Your task to perform on an android device: Go to privacy settings Image 0: 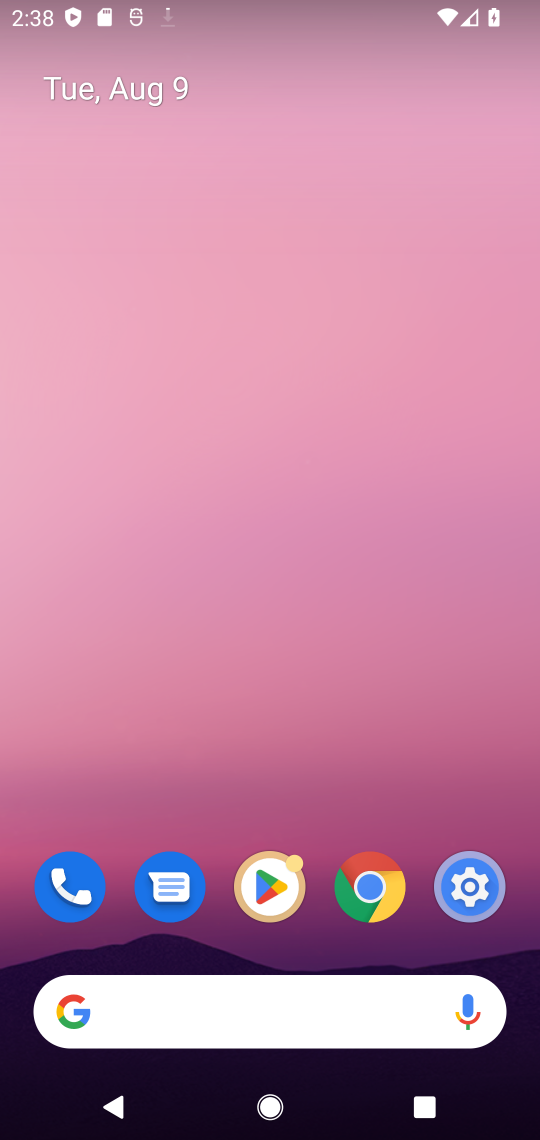
Step 0: drag from (272, 796) to (304, 298)
Your task to perform on an android device: Go to privacy settings Image 1: 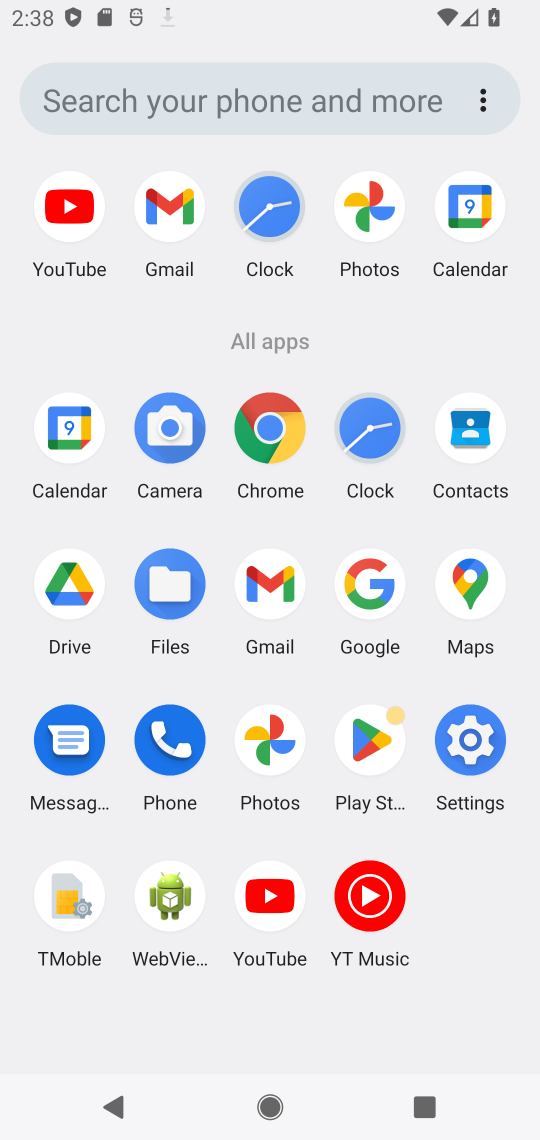
Step 1: click (466, 743)
Your task to perform on an android device: Go to privacy settings Image 2: 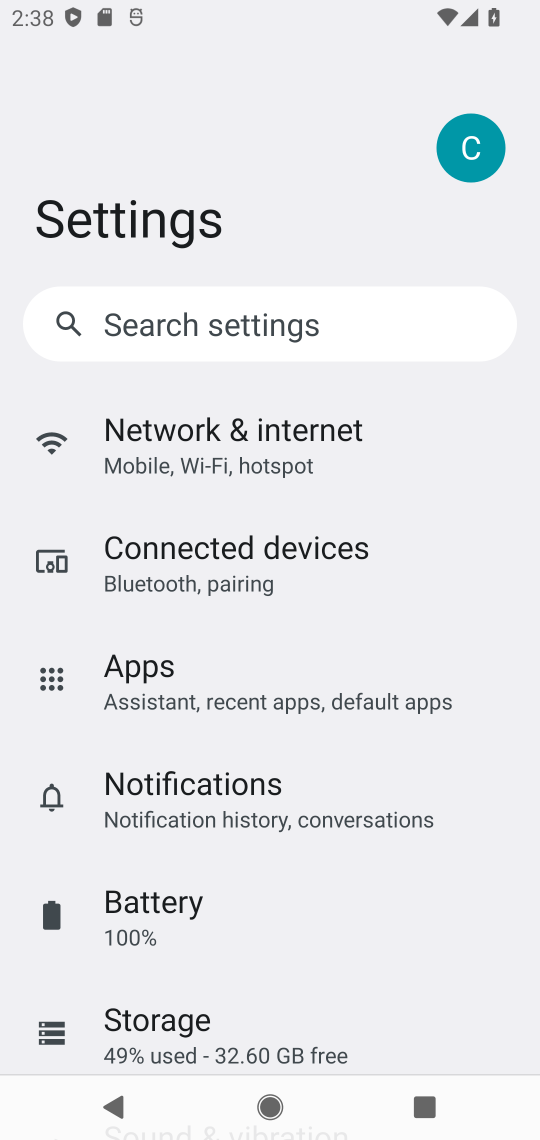
Step 2: drag from (309, 930) to (324, 420)
Your task to perform on an android device: Go to privacy settings Image 3: 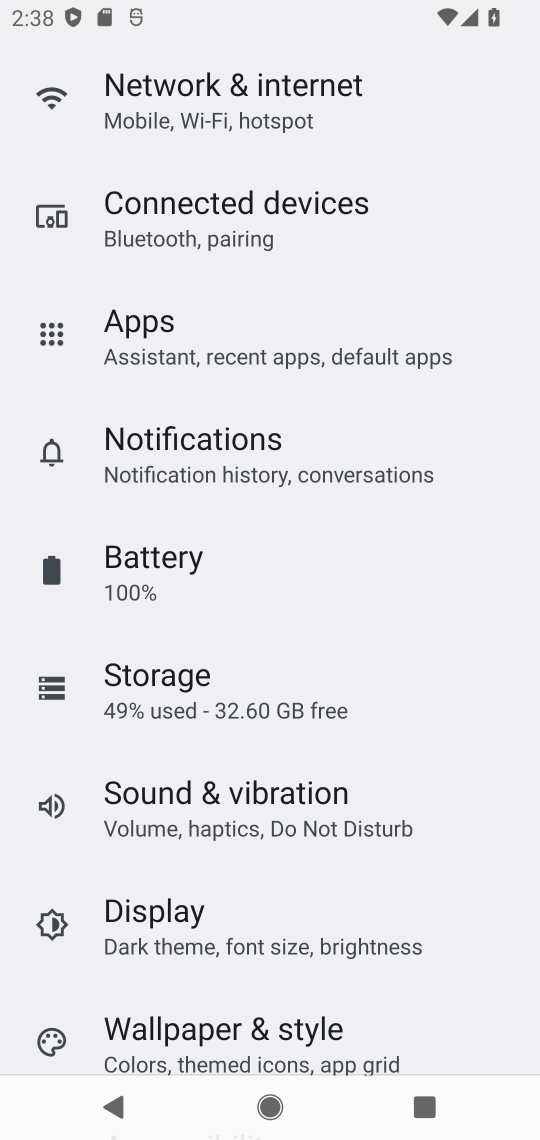
Step 3: drag from (227, 948) to (361, 251)
Your task to perform on an android device: Go to privacy settings Image 4: 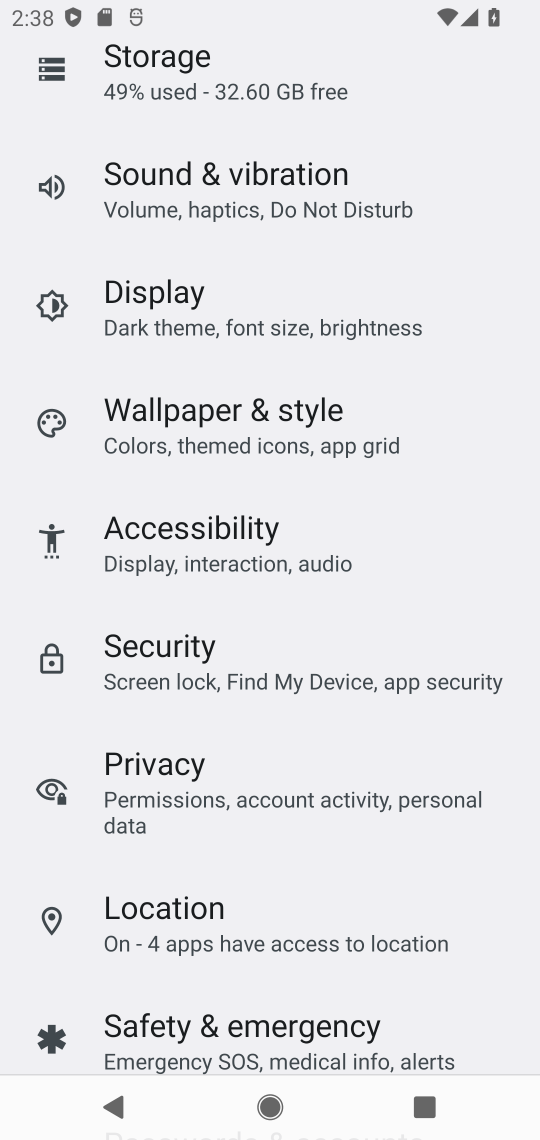
Step 4: click (155, 764)
Your task to perform on an android device: Go to privacy settings Image 5: 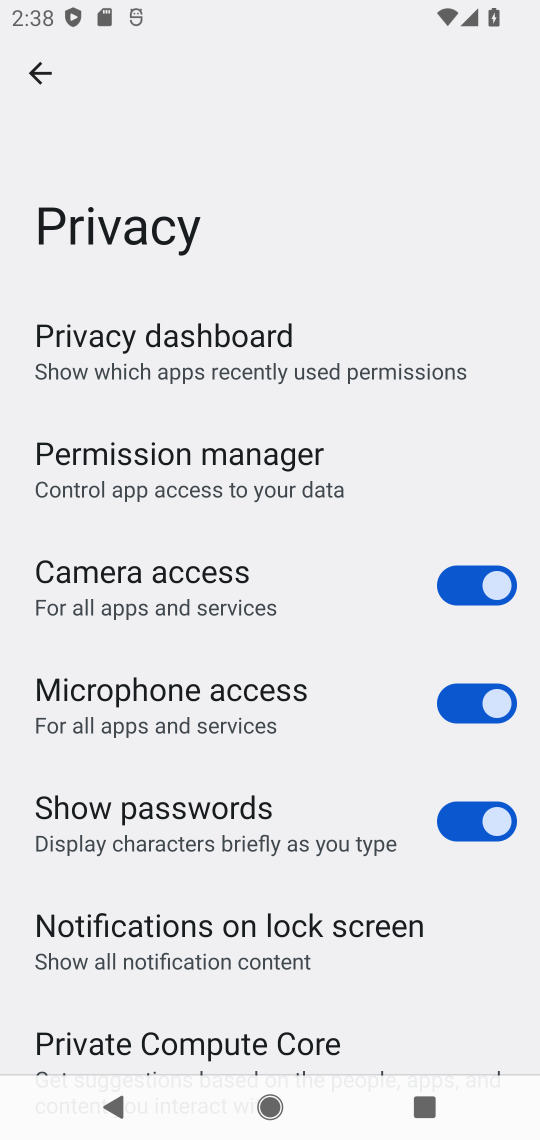
Step 5: task complete